Your task to perform on an android device: change the clock display to digital Image 0: 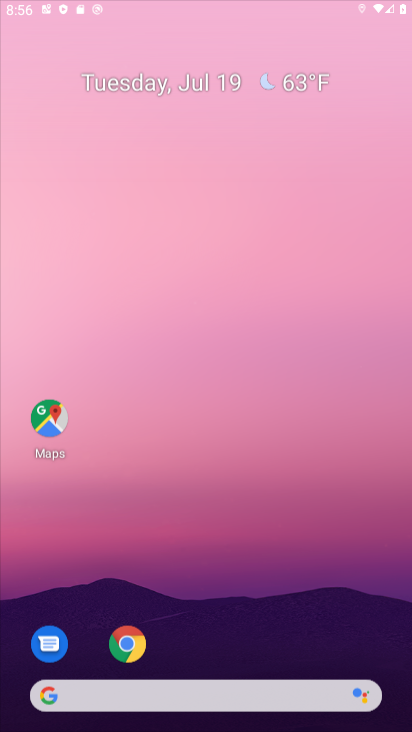
Step 0: click (209, 120)
Your task to perform on an android device: change the clock display to digital Image 1: 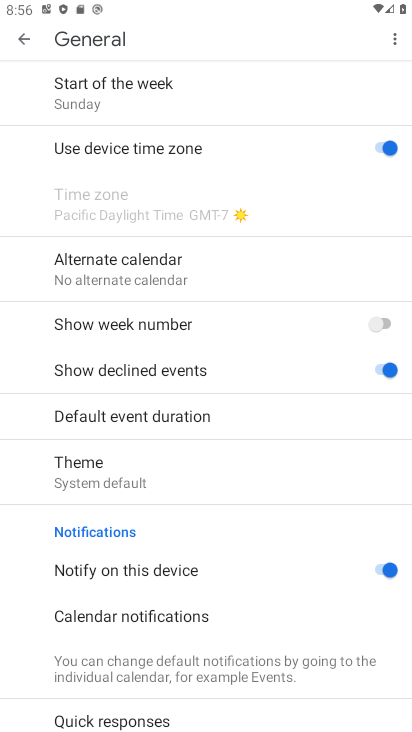
Step 1: click (23, 27)
Your task to perform on an android device: change the clock display to digital Image 2: 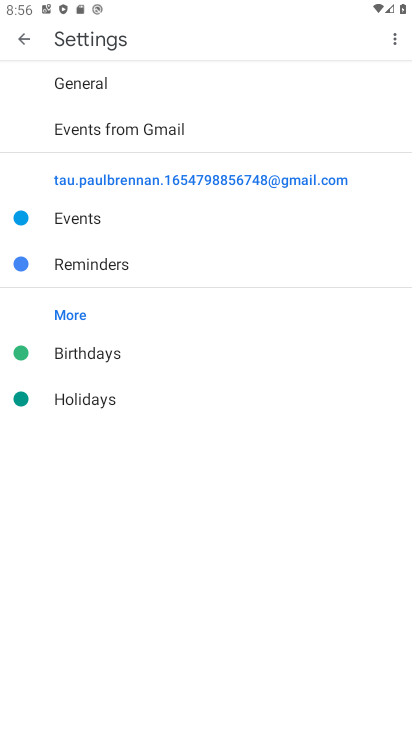
Step 2: click (12, 38)
Your task to perform on an android device: change the clock display to digital Image 3: 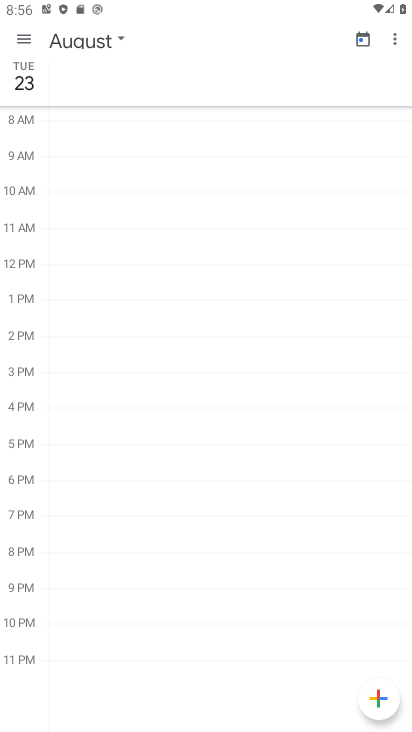
Step 3: press back button
Your task to perform on an android device: change the clock display to digital Image 4: 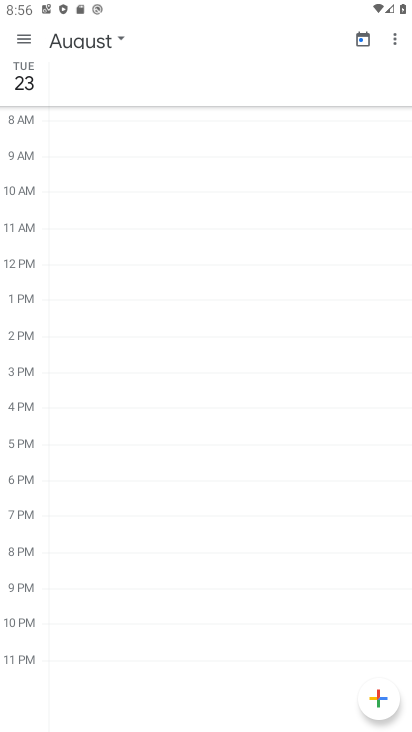
Step 4: press back button
Your task to perform on an android device: change the clock display to digital Image 5: 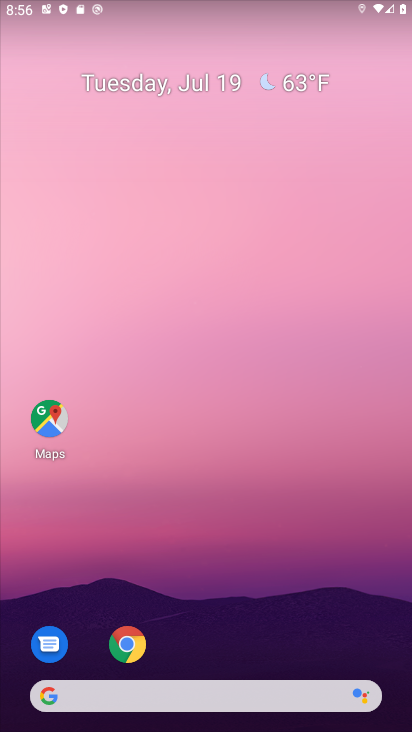
Step 5: drag from (247, 632) to (128, 203)
Your task to perform on an android device: change the clock display to digital Image 6: 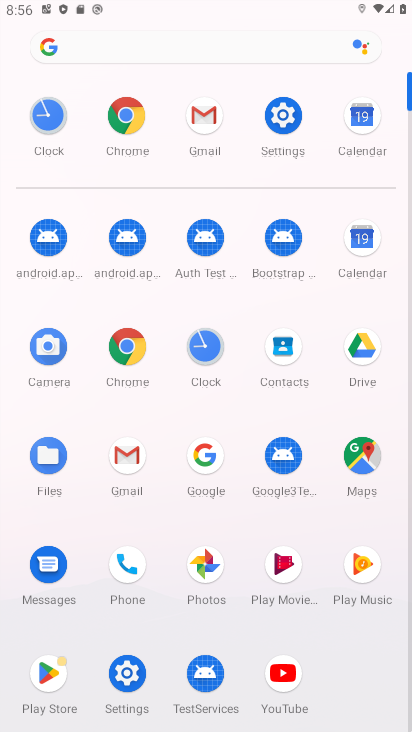
Step 6: click (205, 342)
Your task to perform on an android device: change the clock display to digital Image 7: 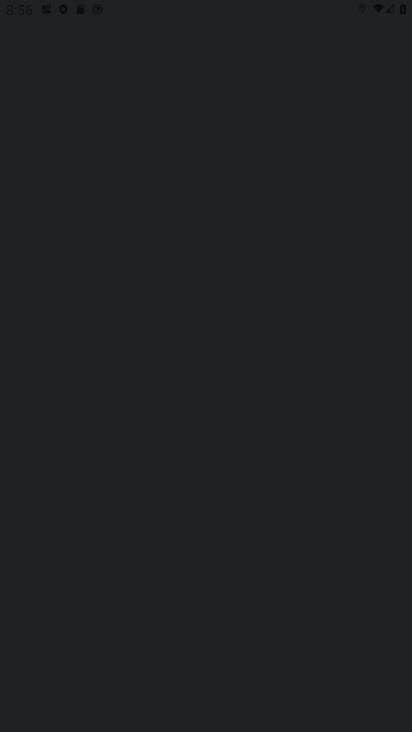
Step 7: click (160, 324)
Your task to perform on an android device: change the clock display to digital Image 8: 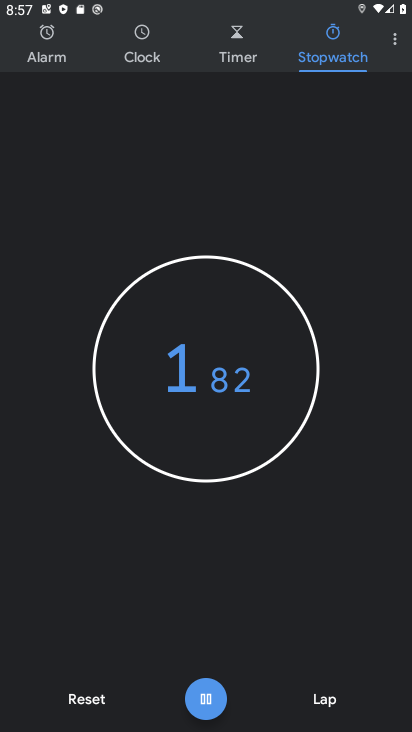
Step 8: click (393, 37)
Your task to perform on an android device: change the clock display to digital Image 9: 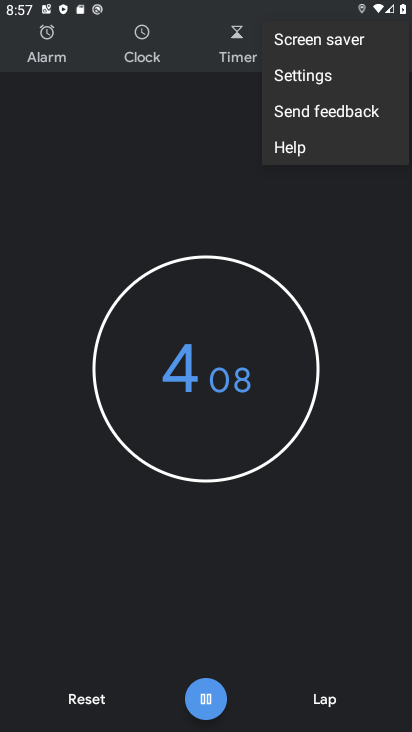
Step 9: click (304, 81)
Your task to perform on an android device: change the clock display to digital Image 10: 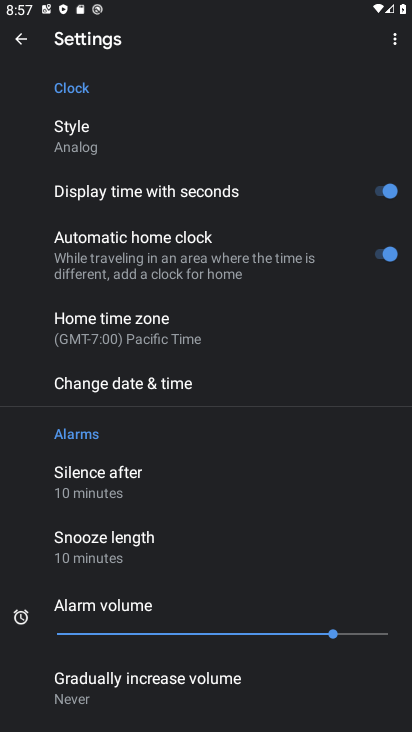
Step 10: click (122, 376)
Your task to perform on an android device: change the clock display to digital Image 11: 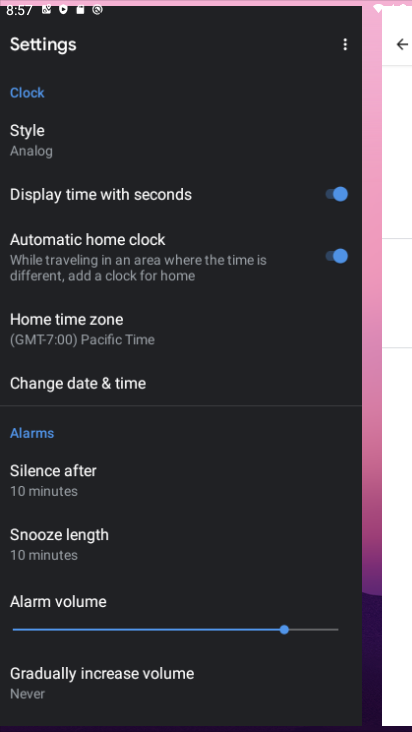
Step 11: click (121, 384)
Your task to perform on an android device: change the clock display to digital Image 12: 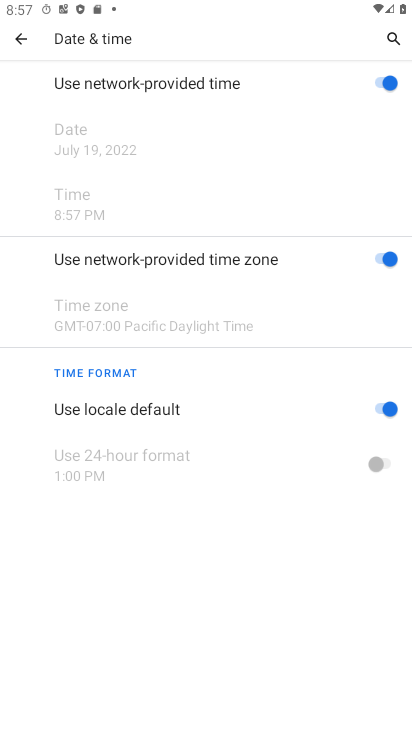
Step 12: click (43, 212)
Your task to perform on an android device: change the clock display to digital Image 13: 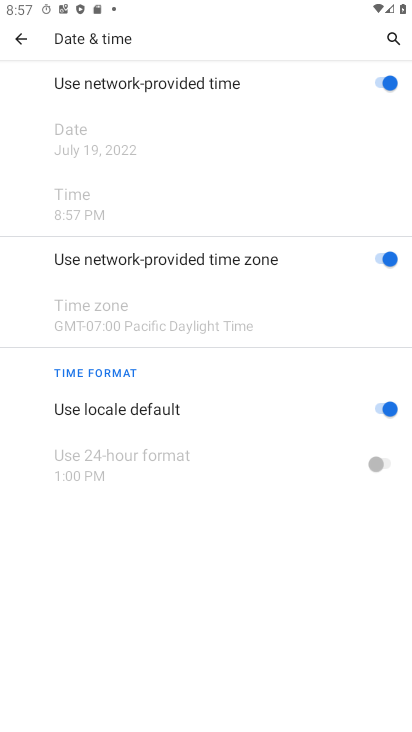
Step 13: click (38, 141)
Your task to perform on an android device: change the clock display to digital Image 14: 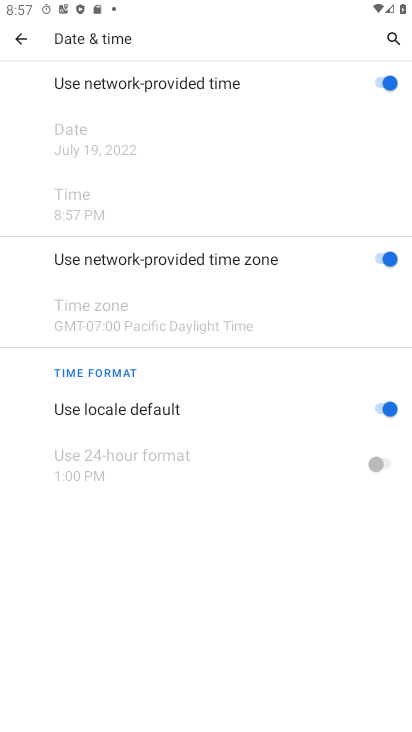
Step 14: click (38, 141)
Your task to perform on an android device: change the clock display to digital Image 15: 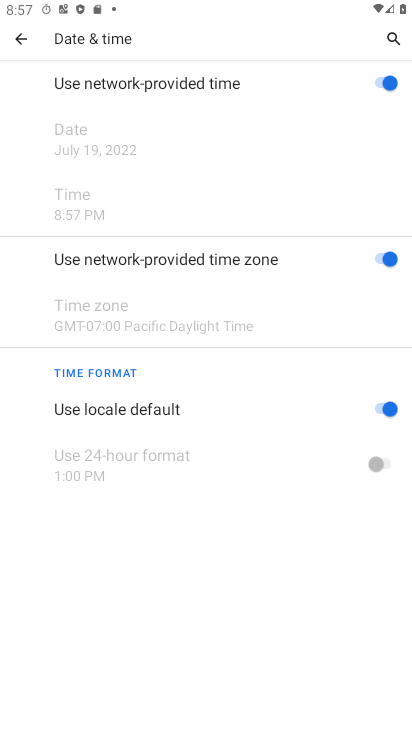
Step 15: click (11, 45)
Your task to perform on an android device: change the clock display to digital Image 16: 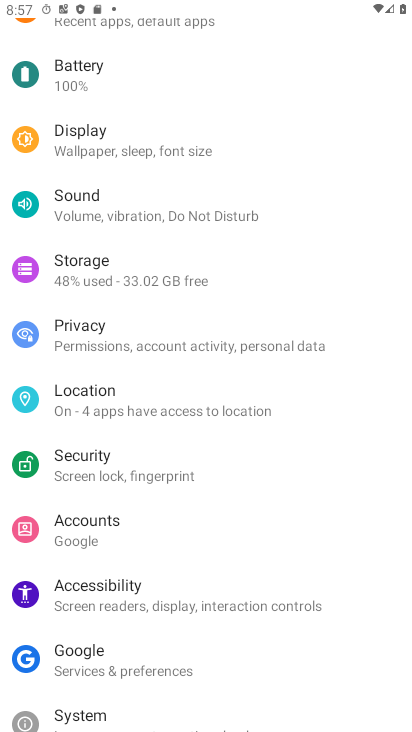
Step 16: press back button
Your task to perform on an android device: change the clock display to digital Image 17: 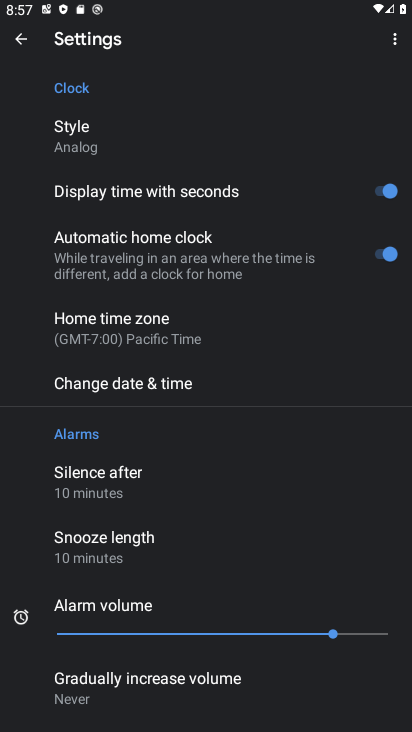
Step 17: click (111, 141)
Your task to perform on an android device: change the clock display to digital Image 18: 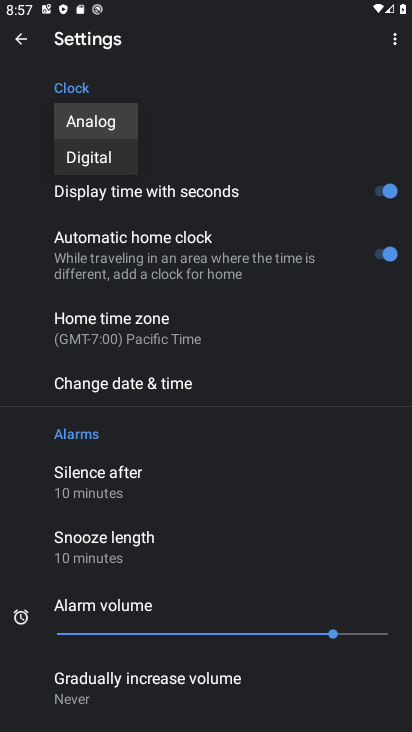
Step 18: click (101, 158)
Your task to perform on an android device: change the clock display to digital Image 19: 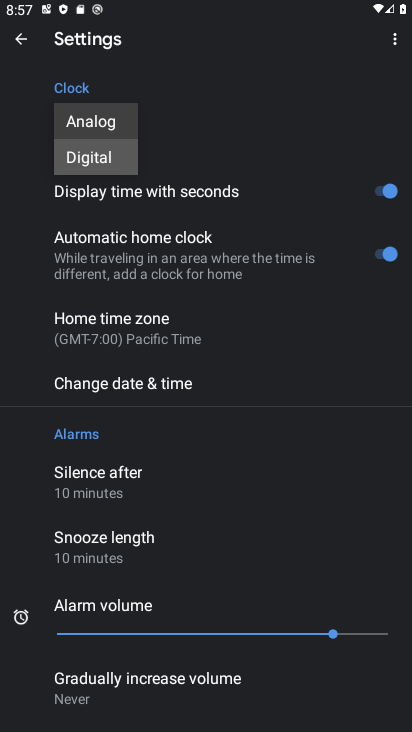
Step 19: click (101, 153)
Your task to perform on an android device: change the clock display to digital Image 20: 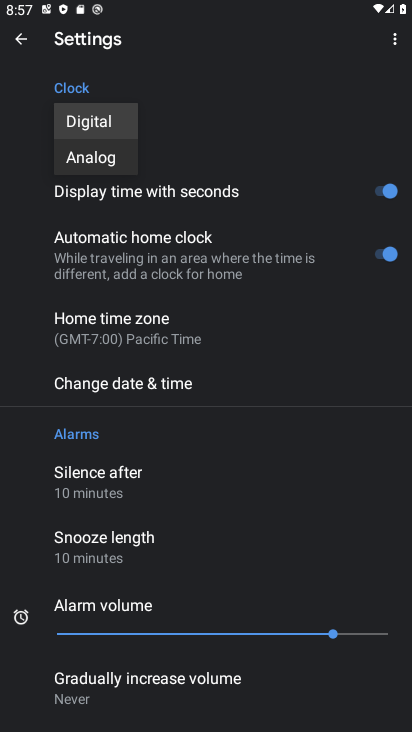
Step 20: click (97, 124)
Your task to perform on an android device: change the clock display to digital Image 21: 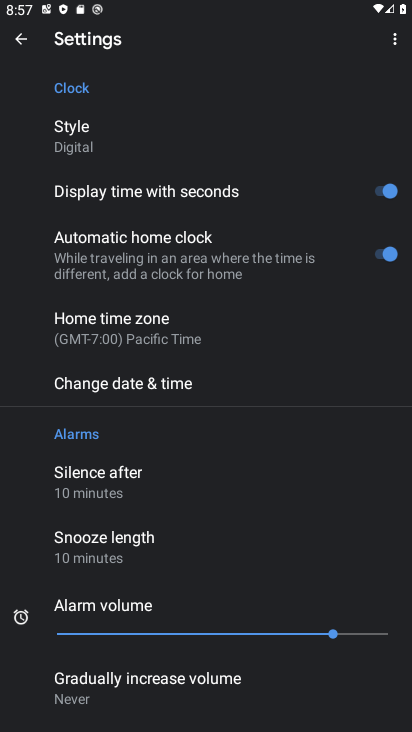
Step 21: task complete